Your task to perform on an android device: read, delete, or share a saved page in the chrome app Image 0: 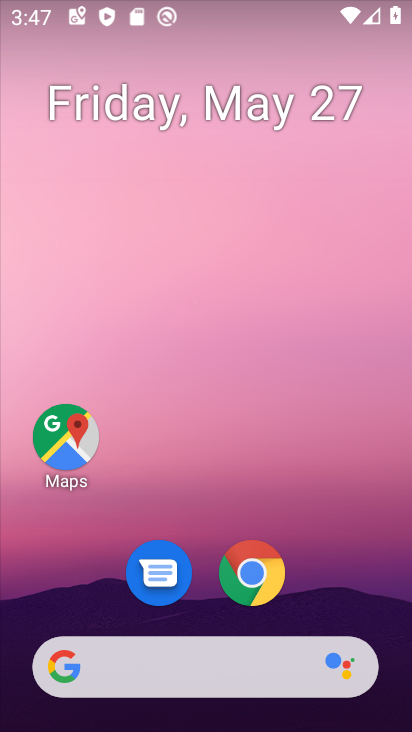
Step 0: drag from (357, 583) to (371, 128)
Your task to perform on an android device: read, delete, or share a saved page in the chrome app Image 1: 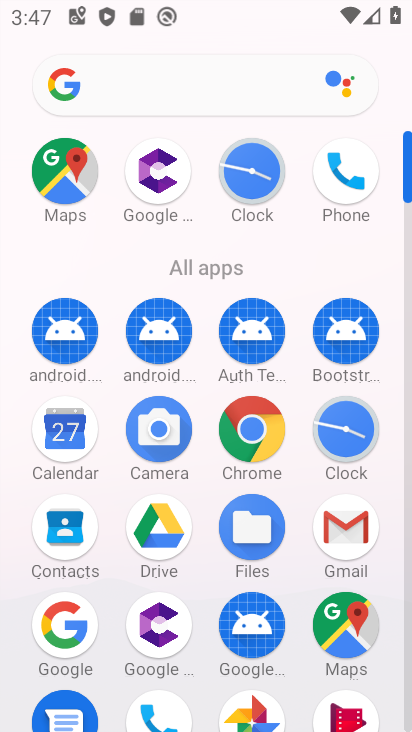
Step 1: click (270, 438)
Your task to perform on an android device: read, delete, or share a saved page in the chrome app Image 2: 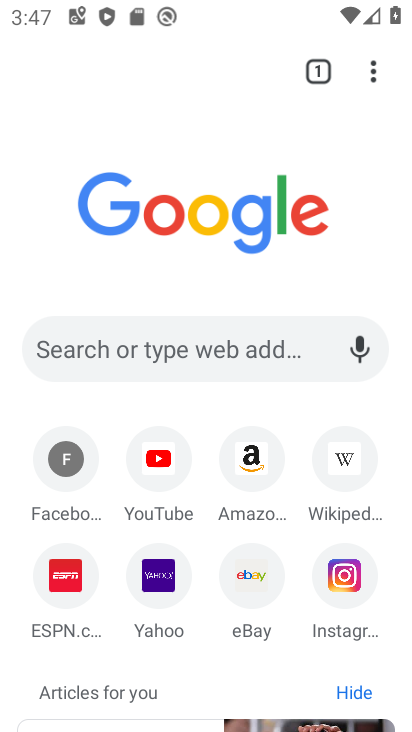
Step 2: click (373, 84)
Your task to perform on an android device: read, delete, or share a saved page in the chrome app Image 3: 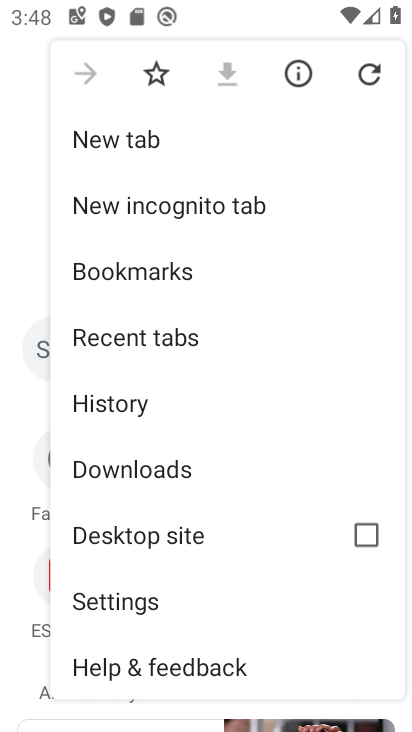
Step 3: click (197, 469)
Your task to perform on an android device: read, delete, or share a saved page in the chrome app Image 4: 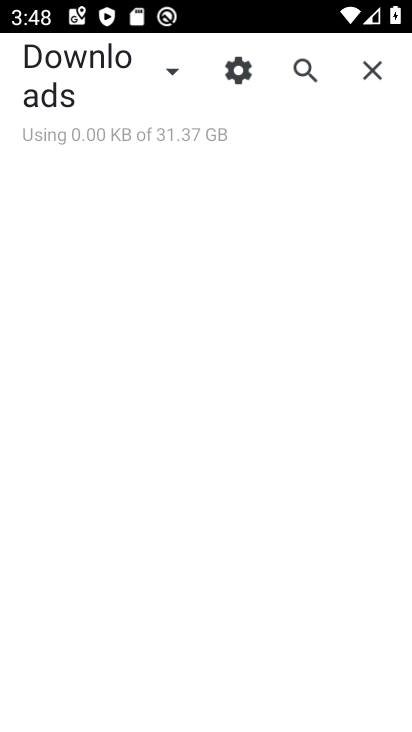
Step 4: click (174, 77)
Your task to perform on an android device: read, delete, or share a saved page in the chrome app Image 5: 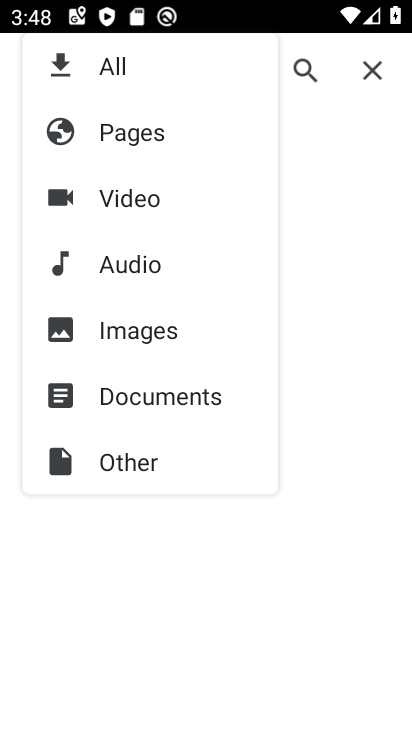
Step 5: click (151, 136)
Your task to perform on an android device: read, delete, or share a saved page in the chrome app Image 6: 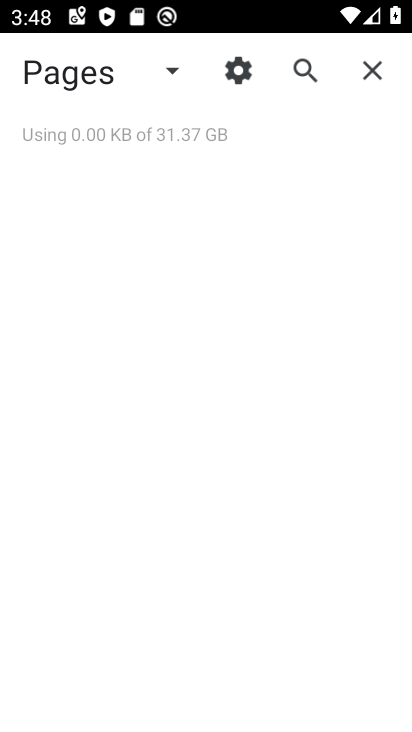
Step 6: task complete